Your task to perform on an android device: Show me productivity apps on the Play Store Image 0: 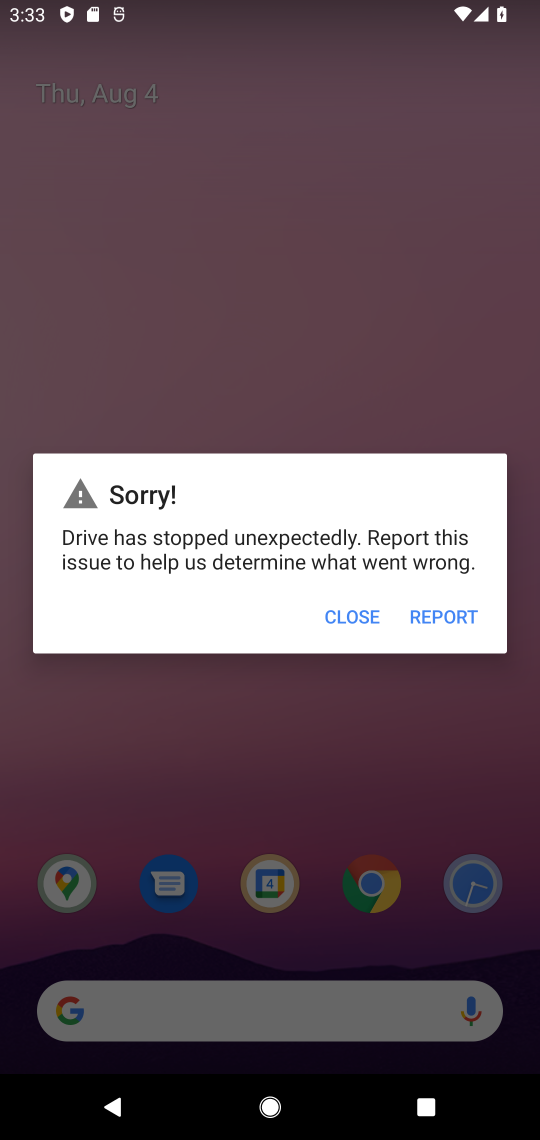
Step 0: press back button
Your task to perform on an android device: Show me productivity apps on the Play Store Image 1: 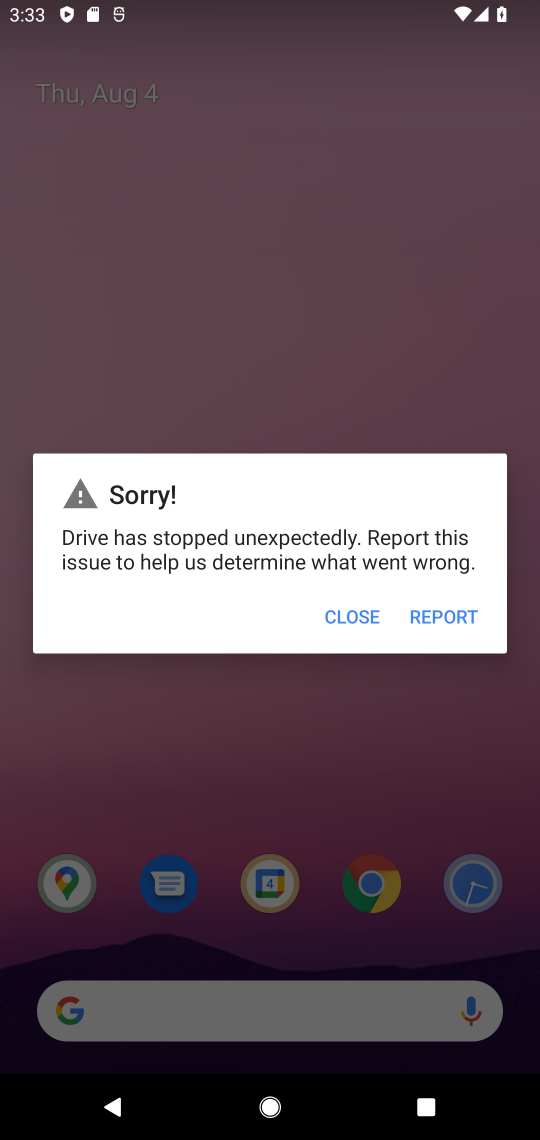
Step 1: press home button
Your task to perform on an android device: Show me productivity apps on the Play Store Image 2: 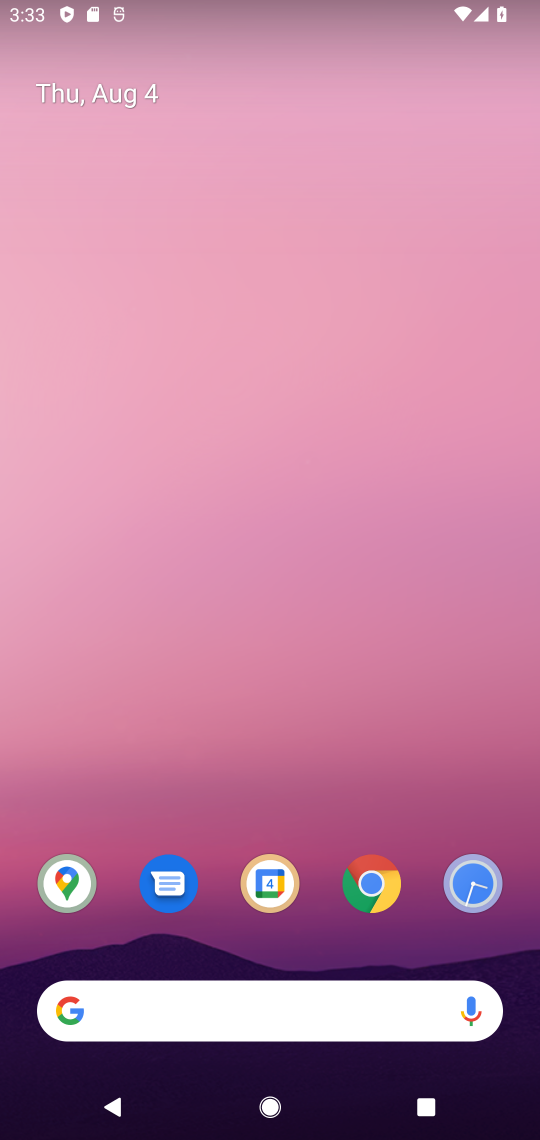
Step 2: drag from (455, 808) to (354, 134)
Your task to perform on an android device: Show me productivity apps on the Play Store Image 3: 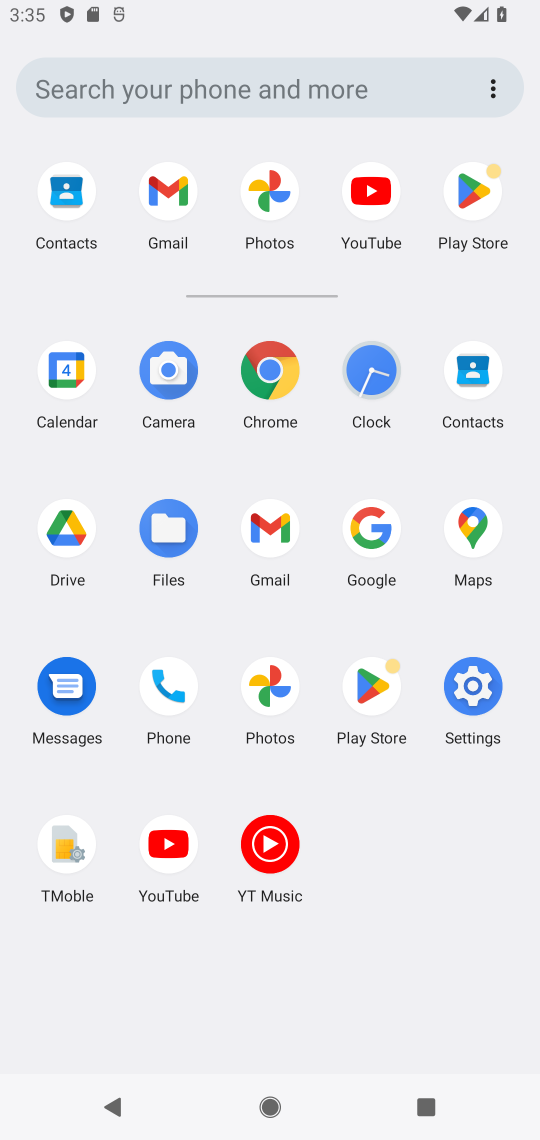
Step 3: click (379, 673)
Your task to perform on an android device: Show me productivity apps on the Play Store Image 4: 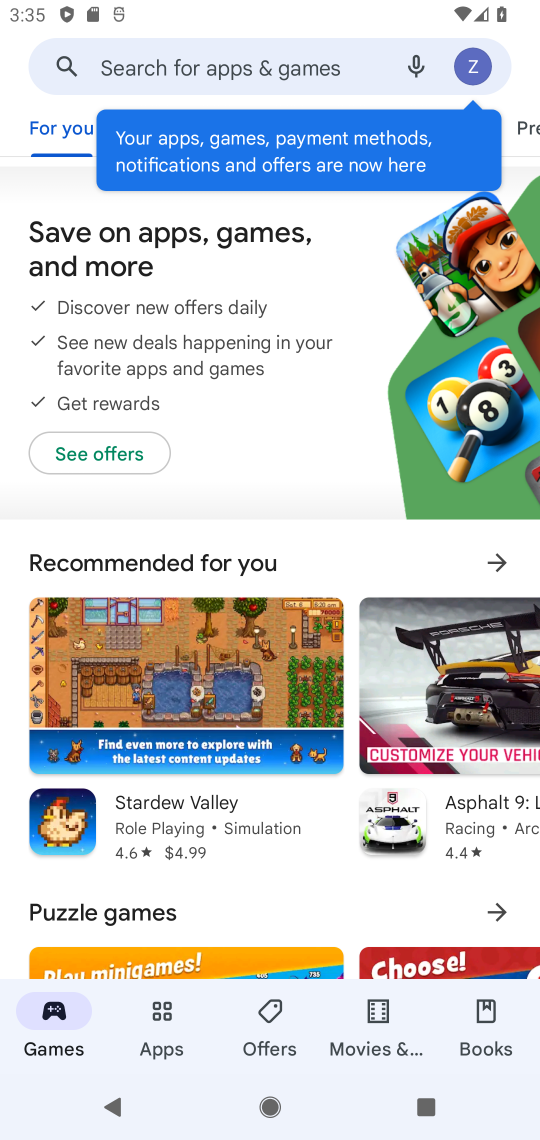
Step 4: task complete